Your task to perform on an android device: toggle improve location accuracy Image 0: 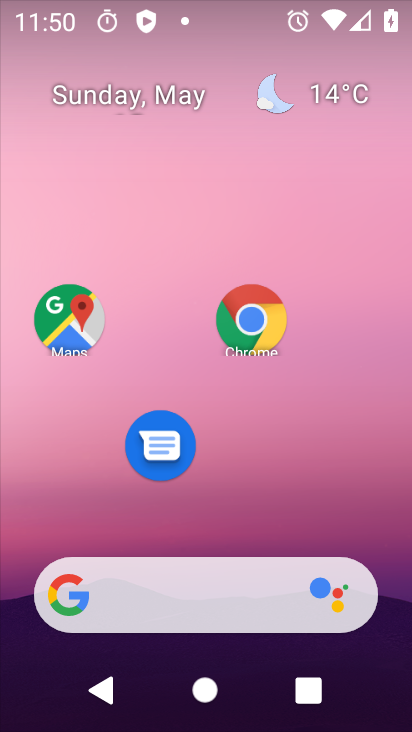
Step 0: press home button
Your task to perform on an android device: toggle improve location accuracy Image 1: 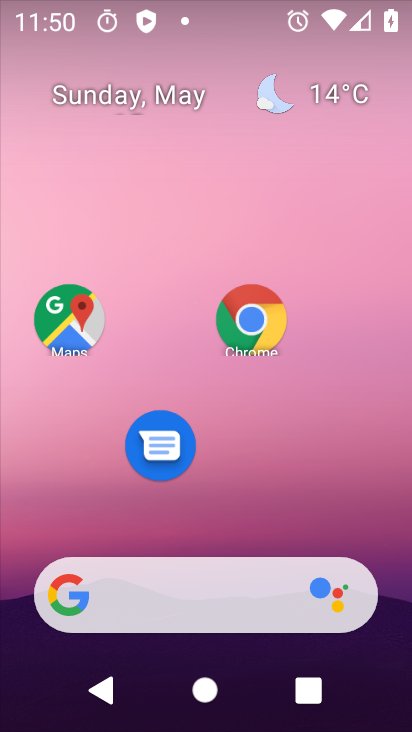
Step 1: drag from (175, 605) to (288, 169)
Your task to perform on an android device: toggle improve location accuracy Image 2: 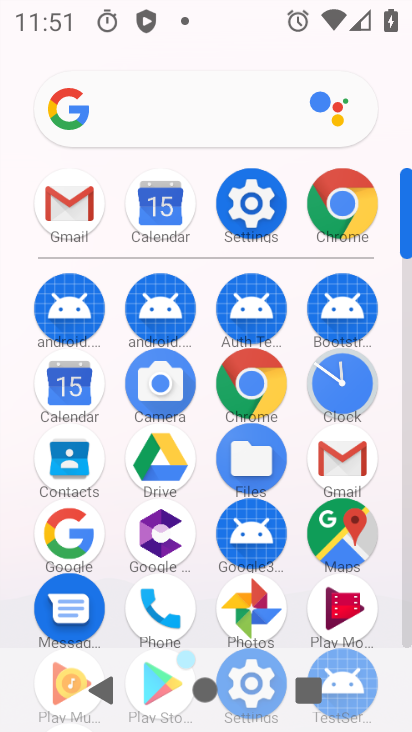
Step 2: click (251, 214)
Your task to perform on an android device: toggle improve location accuracy Image 3: 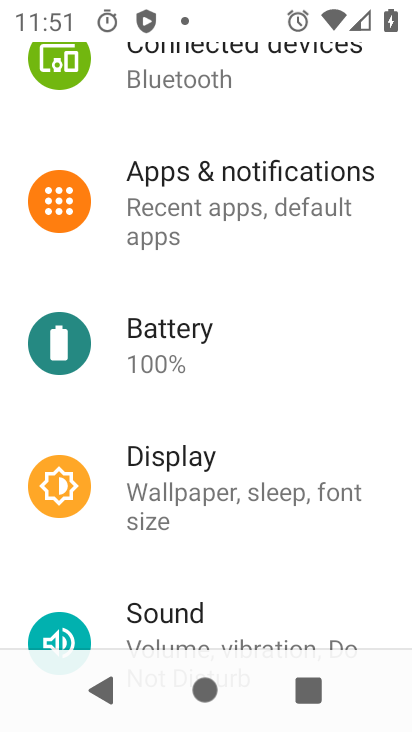
Step 3: drag from (239, 583) to (298, 129)
Your task to perform on an android device: toggle improve location accuracy Image 4: 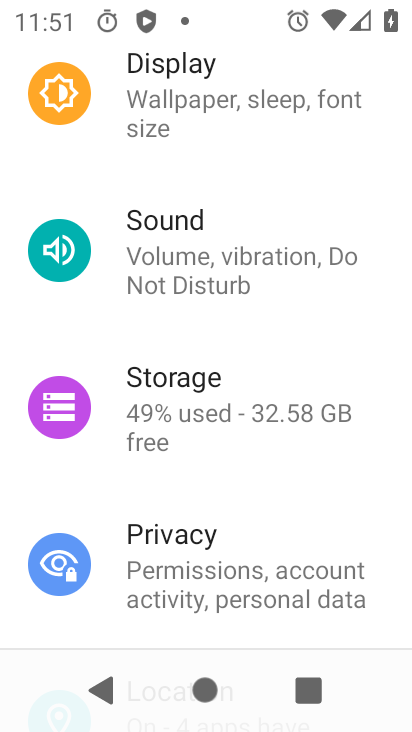
Step 4: drag from (192, 591) to (286, 208)
Your task to perform on an android device: toggle improve location accuracy Image 5: 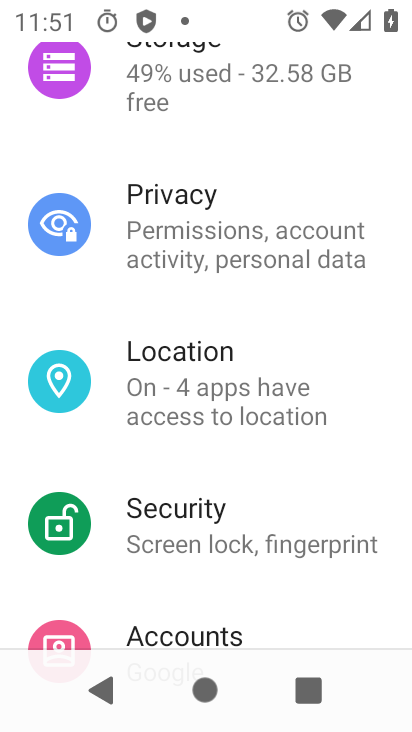
Step 5: click (197, 389)
Your task to perform on an android device: toggle improve location accuracy Image 6: 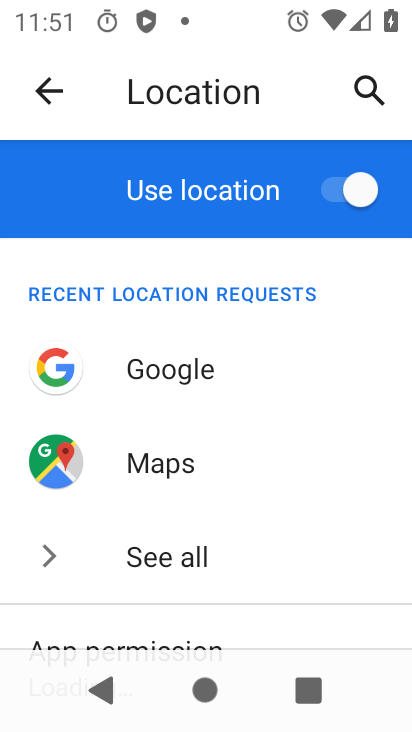
Step 6: drag from (233, 572) to (311, 171)
Your task to perform on an android device: toggle improve location accuracy Image 7: 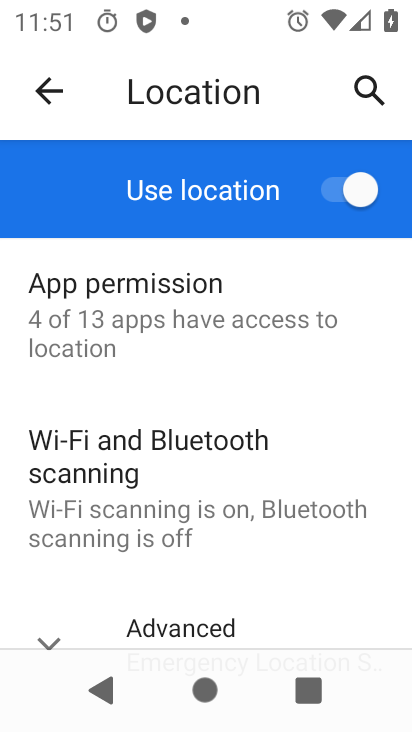
Step 7: drag from (266, 517) to (346, 254)
Your task to perform on an android device: toggle improve location accuracy Image 8: 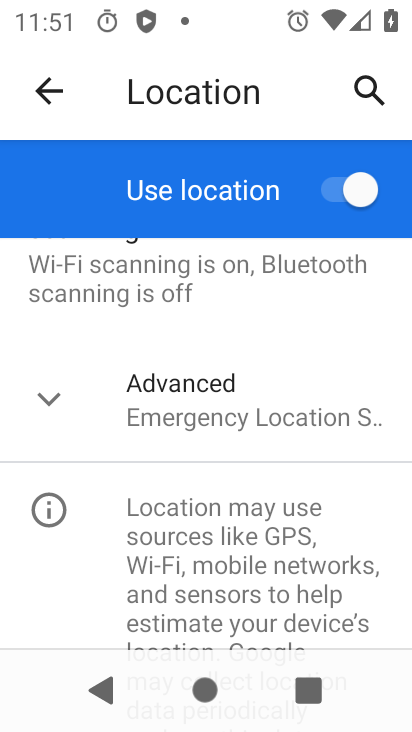
Step 8: click (166, 405)
Your task to perform on an android device: toggle improve location accuracy Image 9: 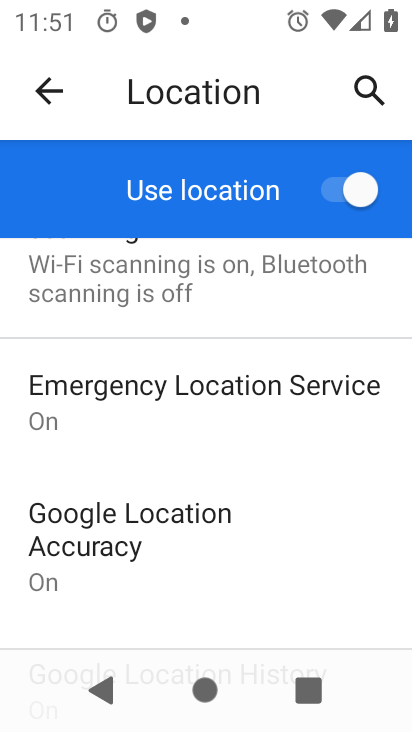
Step 9: drag from (242, 550) to (298, 403)
Your task to perform on an android device: toggle improve location accuracy Image 10: 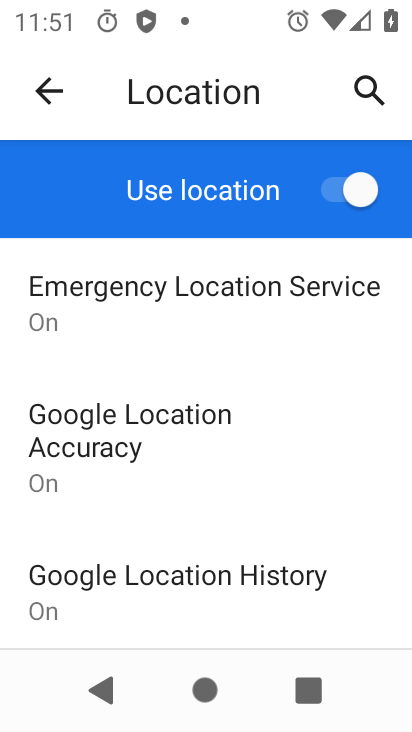
Step 10: click (136, 439)
Your task to perform on an android device: toggle improve location accuracy Image 11: 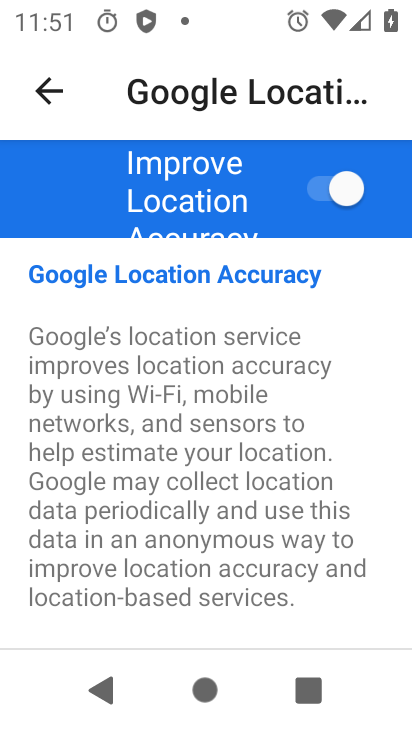
Step 11: click (315, 194)
Your task to perform on an android device: toggle improve location accuracy Image 12: 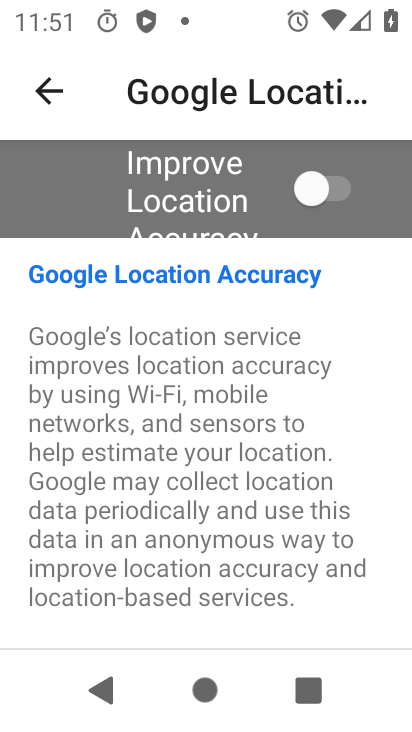
Step 12: task complete